Your task to perform on an android device: turn on data saver in the chrome app Image 0: 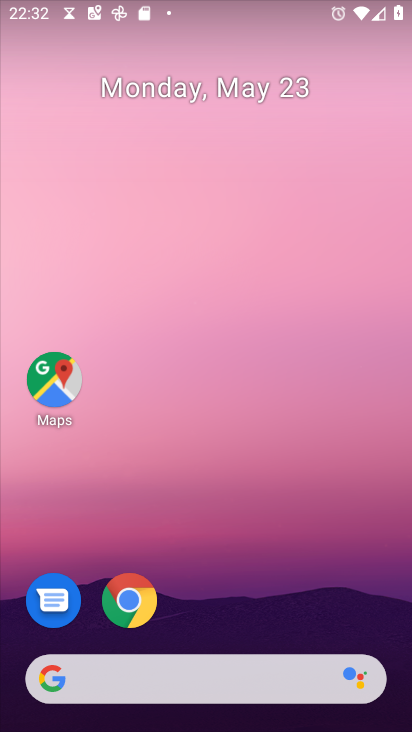
Step 0: click (129, 600)
Your task to perform on an android device: turn on data saver in the chrome app Image 1: 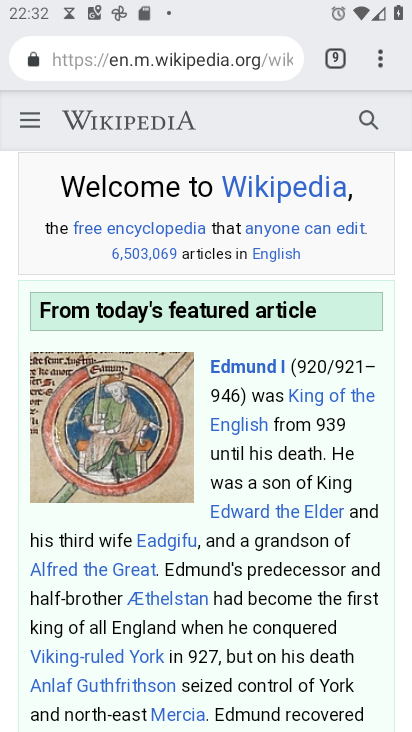
Step 1: click (378, 64)
Your task to perform on an android device: turn on data saver in the chrome app Image 2: 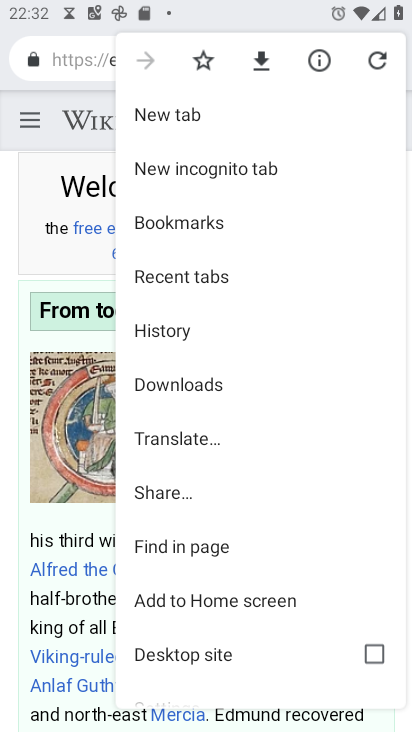
Step 2: drag from (213, 652) to (242, 266)
Your task to perform on an android device: turn on data saver in the chrome app Image 3: 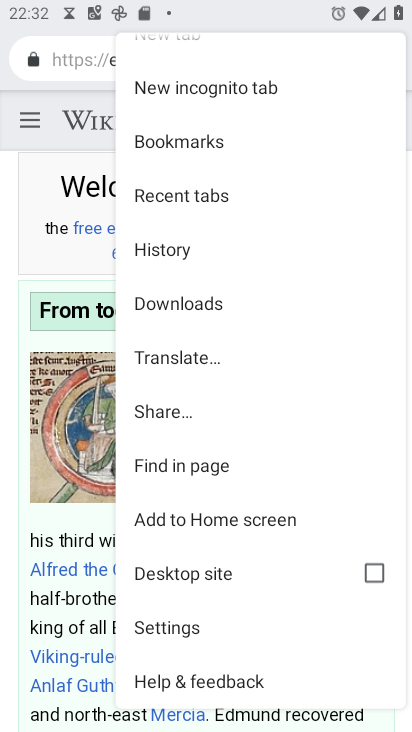
Step 3: click (174, 623)
Your task to perform on an android device: turn on data saver in the chrome app Image 4: 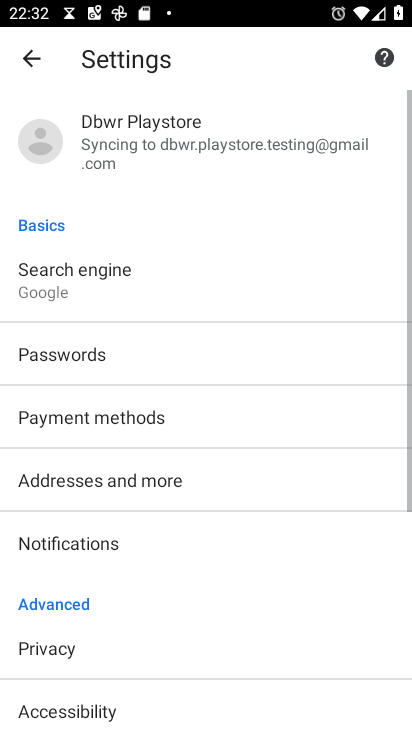
Step 4: drag from (144, 690) to (162, 406)
Your task to perform on an android device: turn on data saver in the chrome app Image 5: 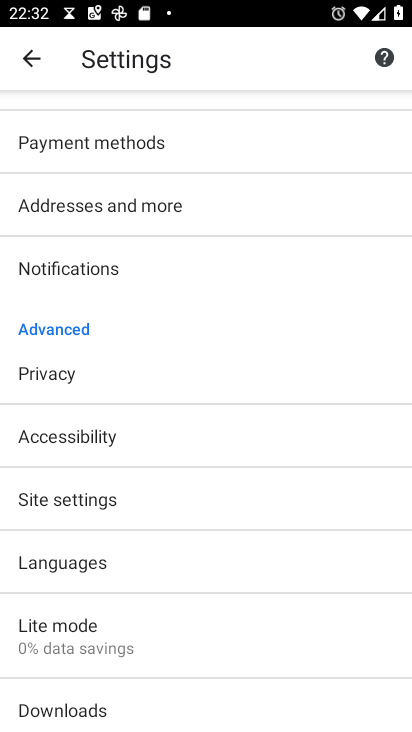
Step 5: click (92, 632)
Your task to perform on an android device: turn on data saver in the chrome app Image 6: 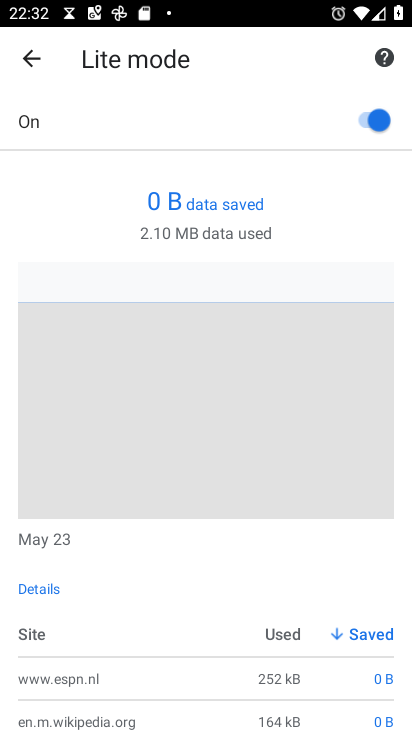
Step 6: task complete